Your task to perform on an android device: set the timer Image 0: 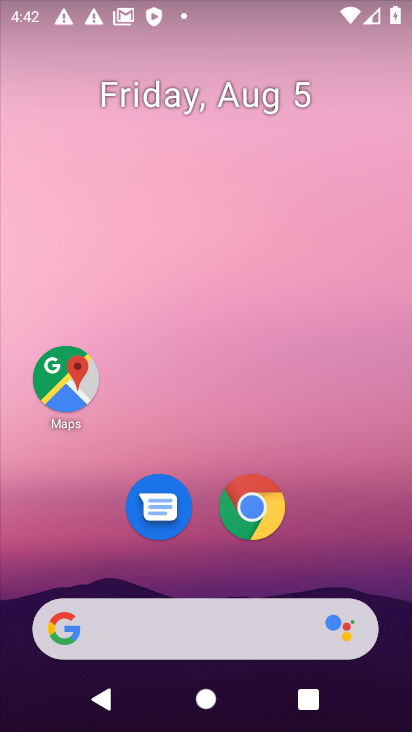
Step 0: drag from (186, 599) to (133, 180)
Your task to perform on an android device: set the timer Image 1: 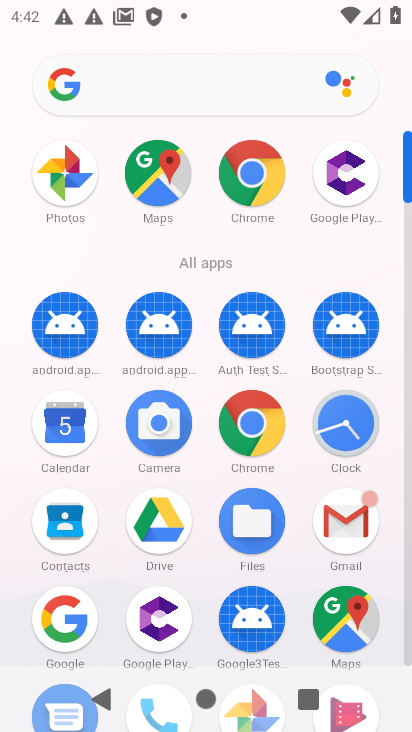
Step 1: click (329, 428)
Your task to perform on an android device: set the timer Image 2: 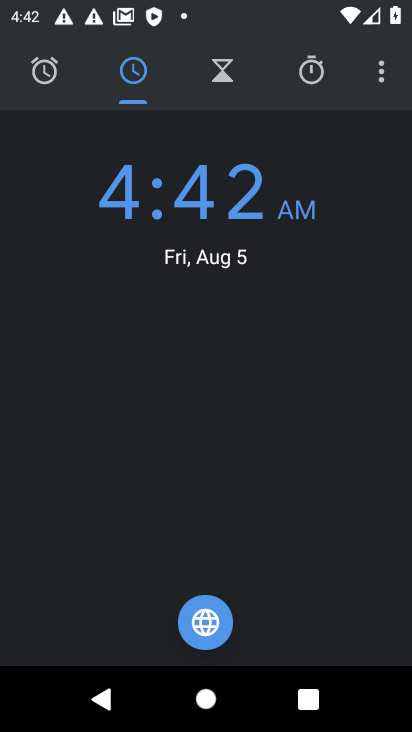
Step 2: click (301, 72)
Your task to perform on an android device: set the timer Image 3: 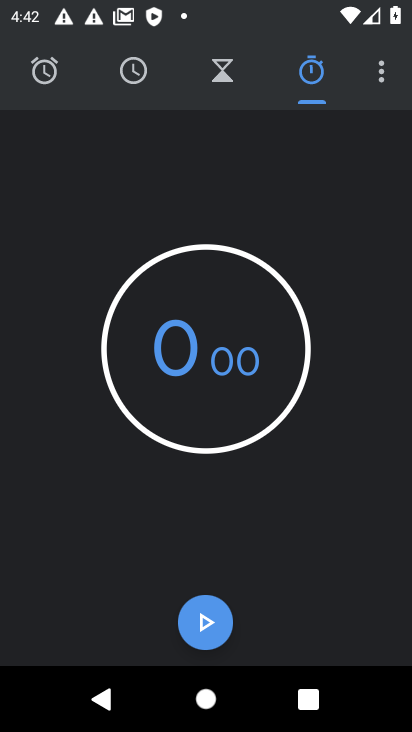
Step 3: click (233, 78)
Your task to perform on an android device: set the timer Image 4: 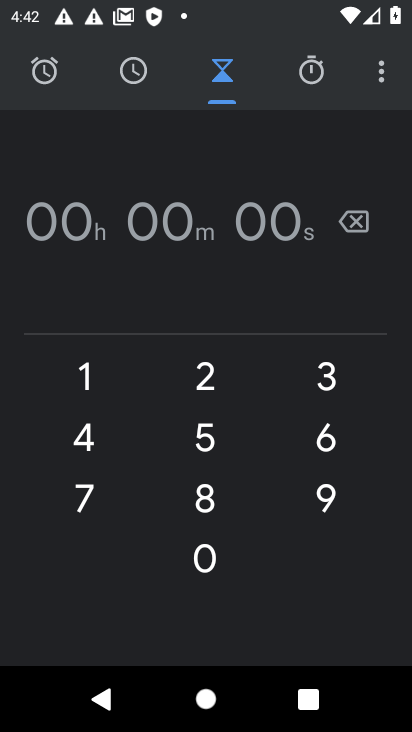
Step 4: click (205, 562)
Your task to perform on an android device: set the timer Image 5: 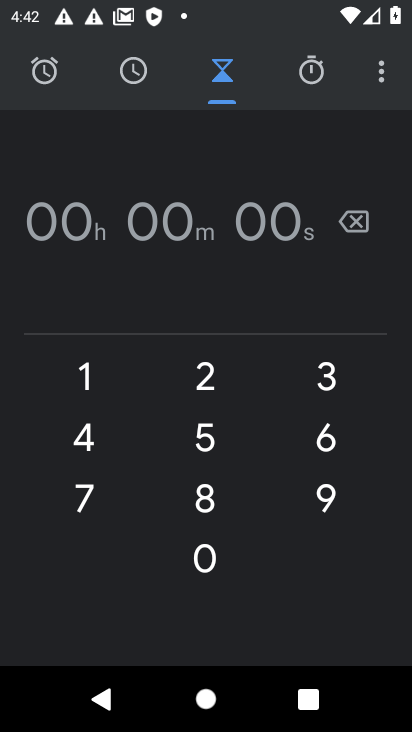
Step 5: click (191, 497)
Your task to perform on an android device: set the timer Image 6: 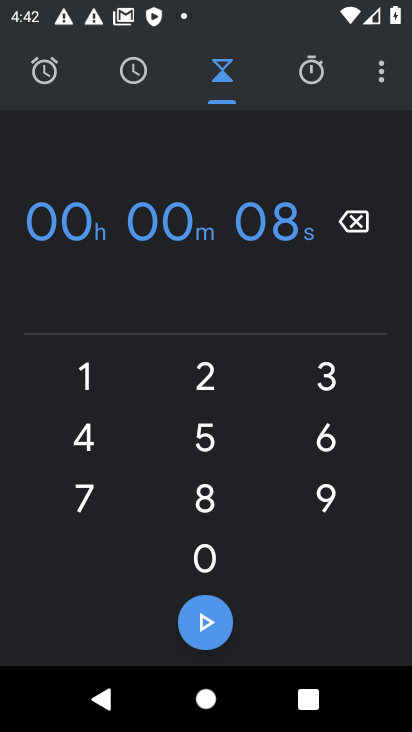
Step 6: click (199, 558)
Your task to perform on an android device: set the timer Image 7: 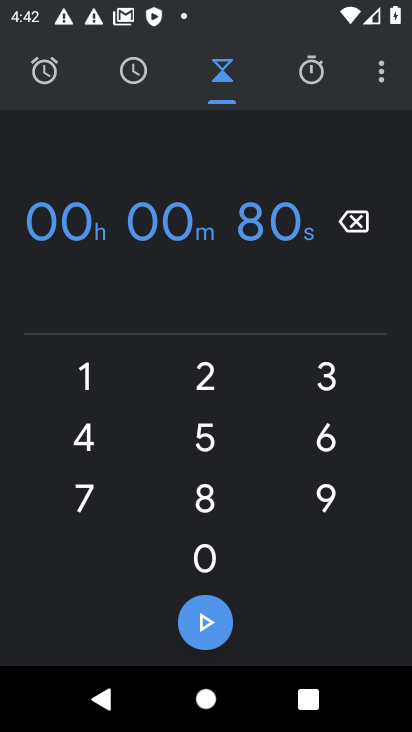
Step 7: click (199, 558)
Your task to perform on an android device: set the timer Image 8: 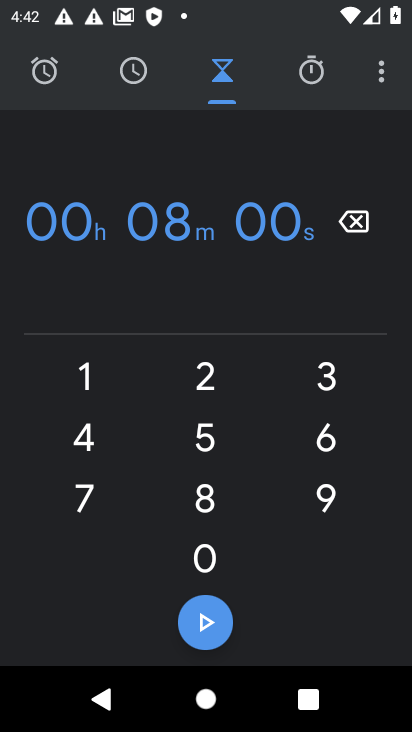
Step 8: task complete